Your task to perform on an android device: install app "Etsy: Buy & Sell Unique Items" Image 0: 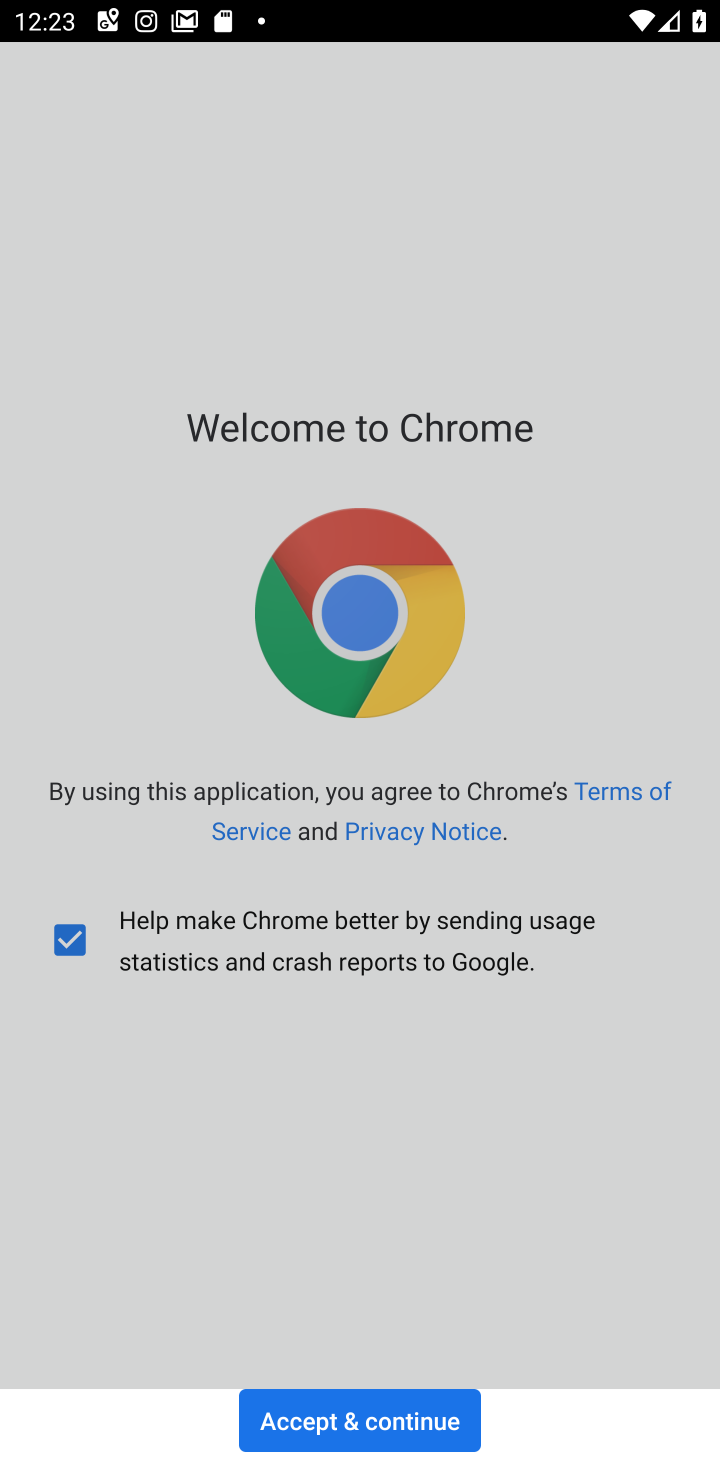
Step 0: press home button
Your task to perform on an android device: install app "Etsy: Buy & Sell Unique Items" Image 1: 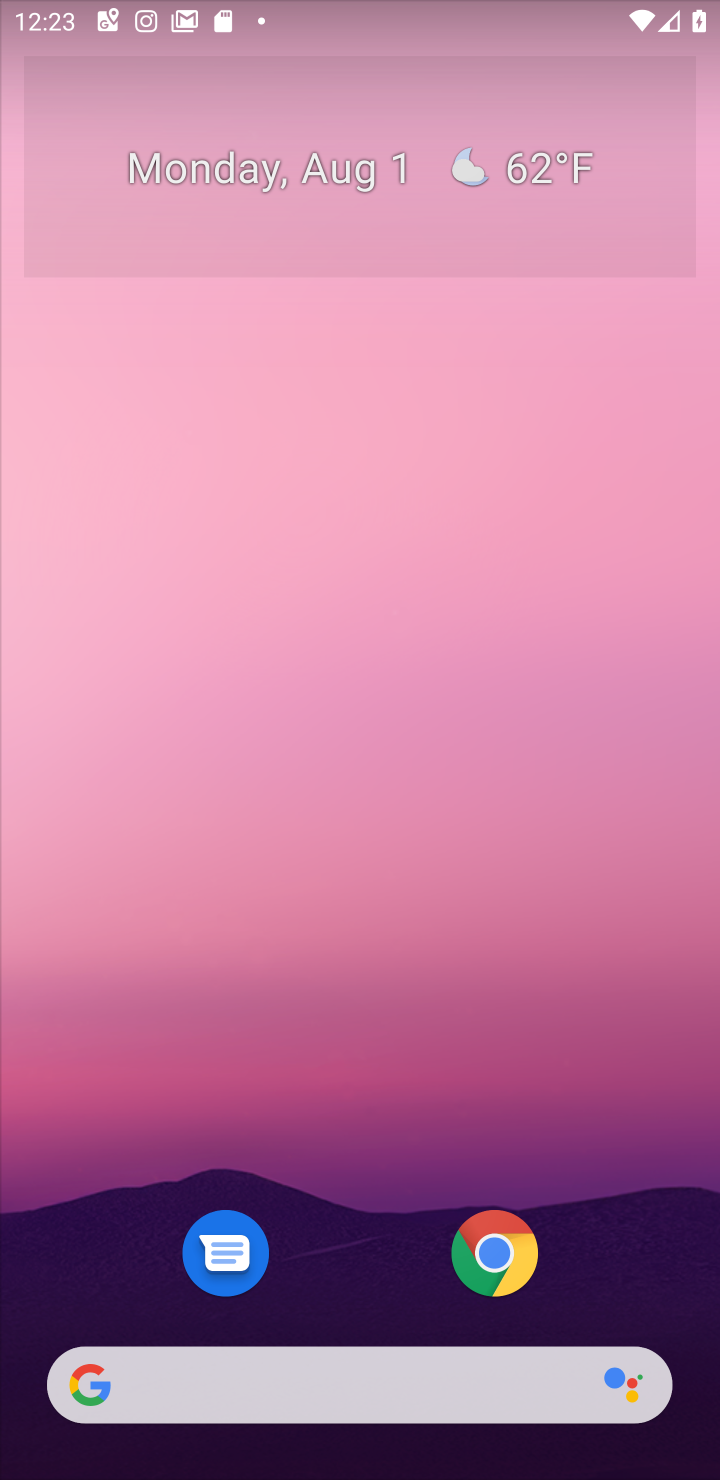
Step 1: drag from (428, 953) to (486, 126)
Your task to perform on an android device: install app "Etsy: Buy & Sell Unique Items" Image 2: 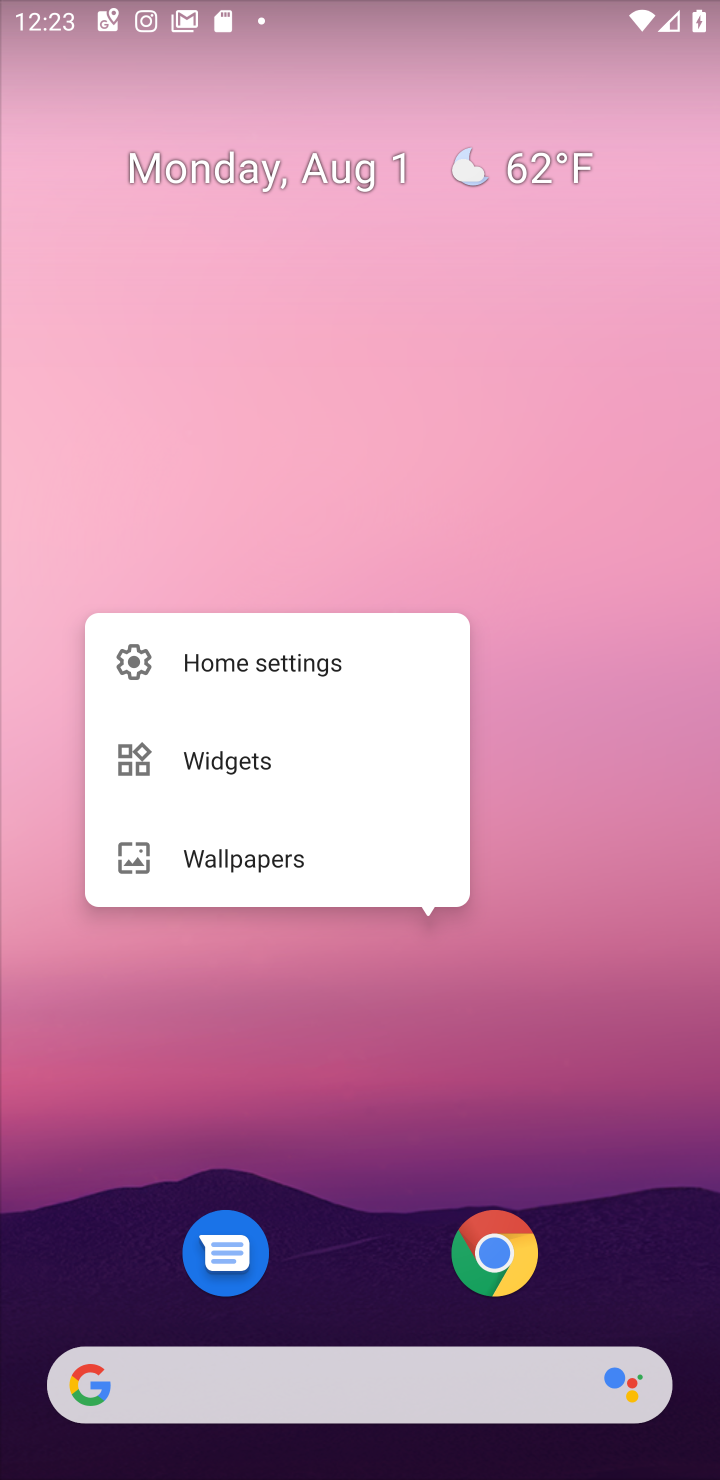
Step 2: click (560, 870)
Your task to perform on an android device: install app "Etsy: Buy & Sell Unique Items" Image 3: 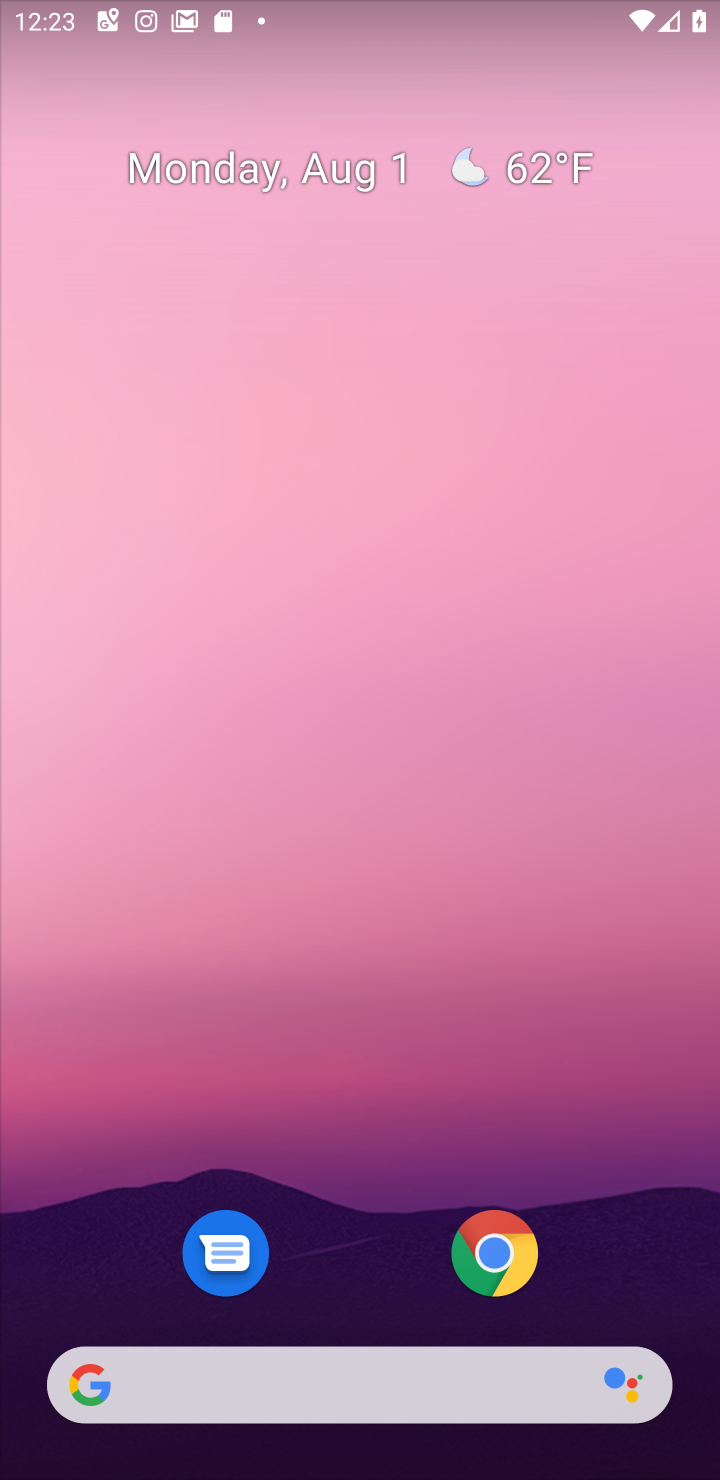
Step 3: drag from (362, 1225) to (438, 205)
Your task to perform on an android device: install app "Etsy: Buy & Sell Unique Items" Image 4: 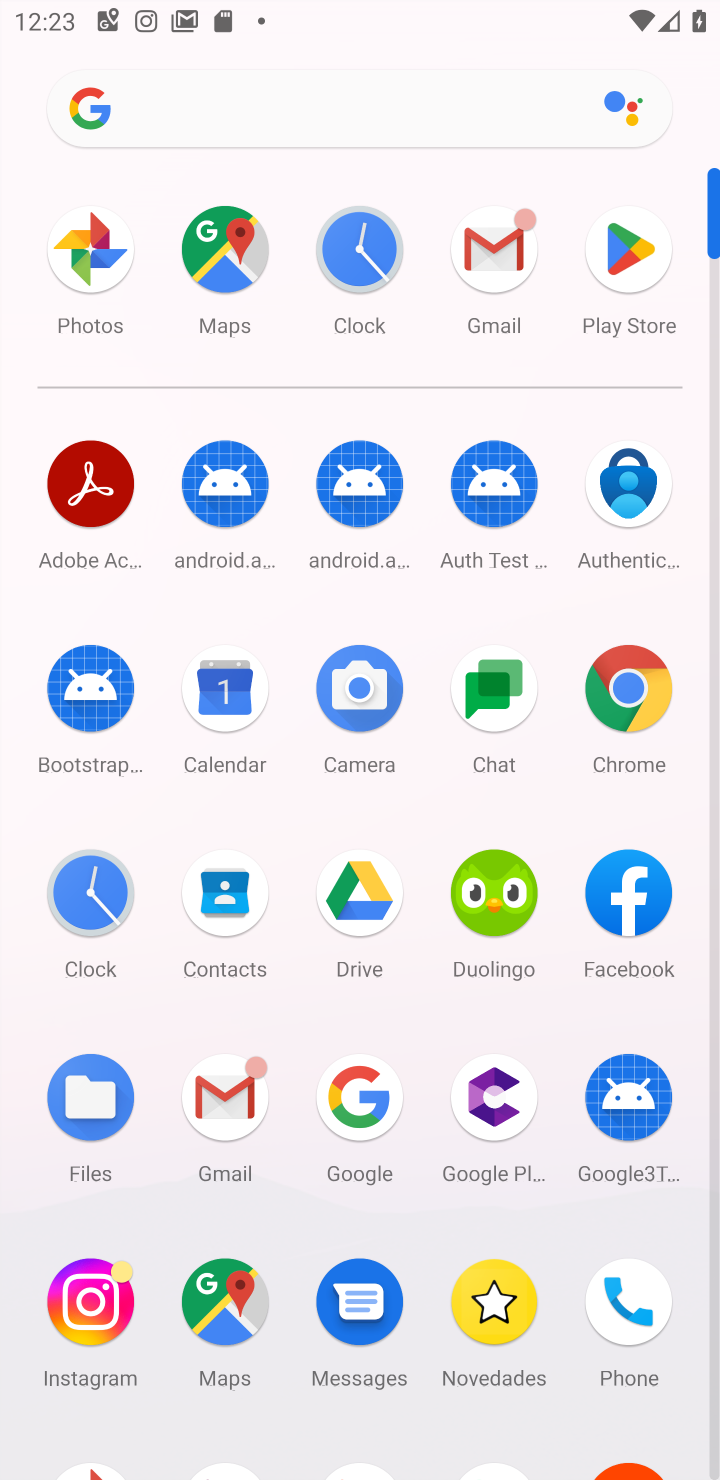
Step 4: click (637, 264)
Your task to perform on an android device: install app "Etsy: Buy & Sell Unique Items" Image 5: 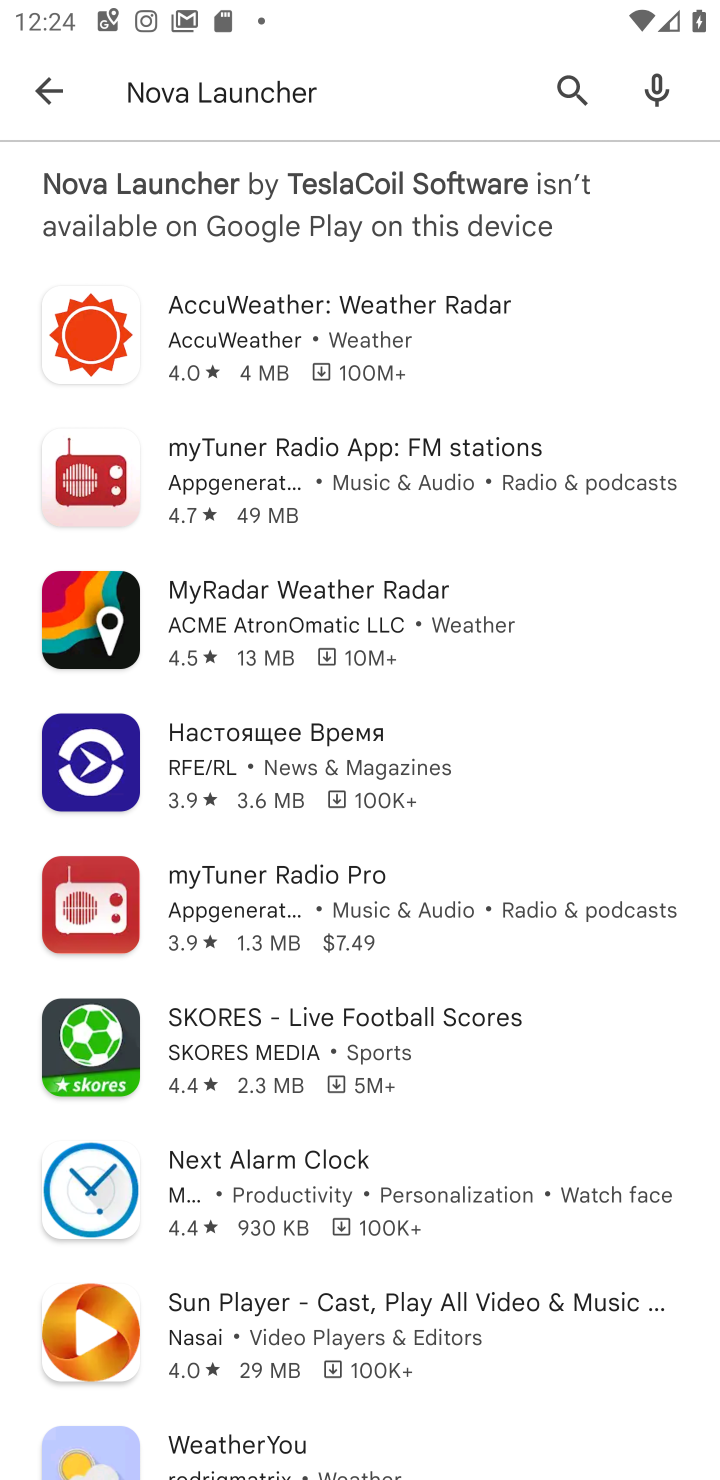
Step 5: click (433, 112)
Your task to perform on an android device: install app "Etsy: Buy & Sell Unique Items" Image 6: 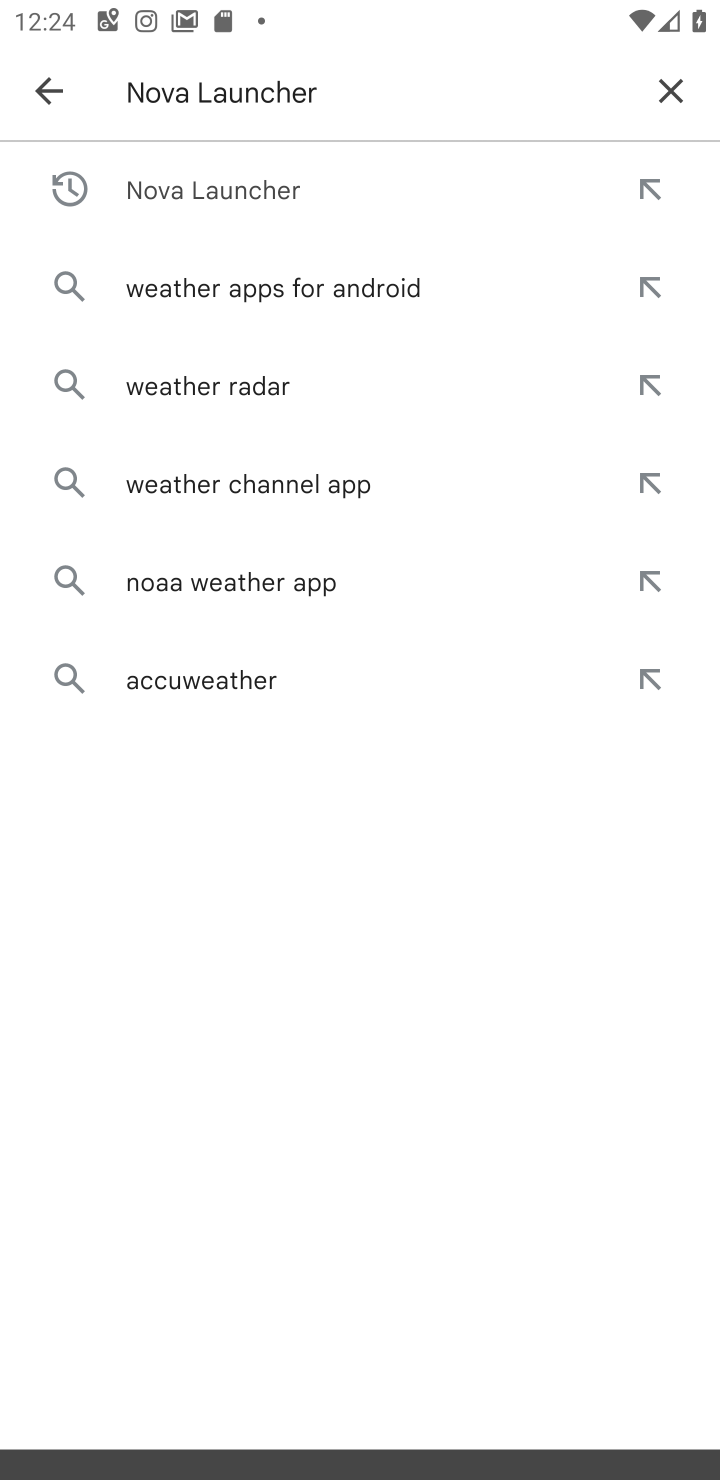
Step 6: click (661, 89)
Your task to perform on an android device: install app "Etsy: Buy & Sell Unique Items" Image 7: 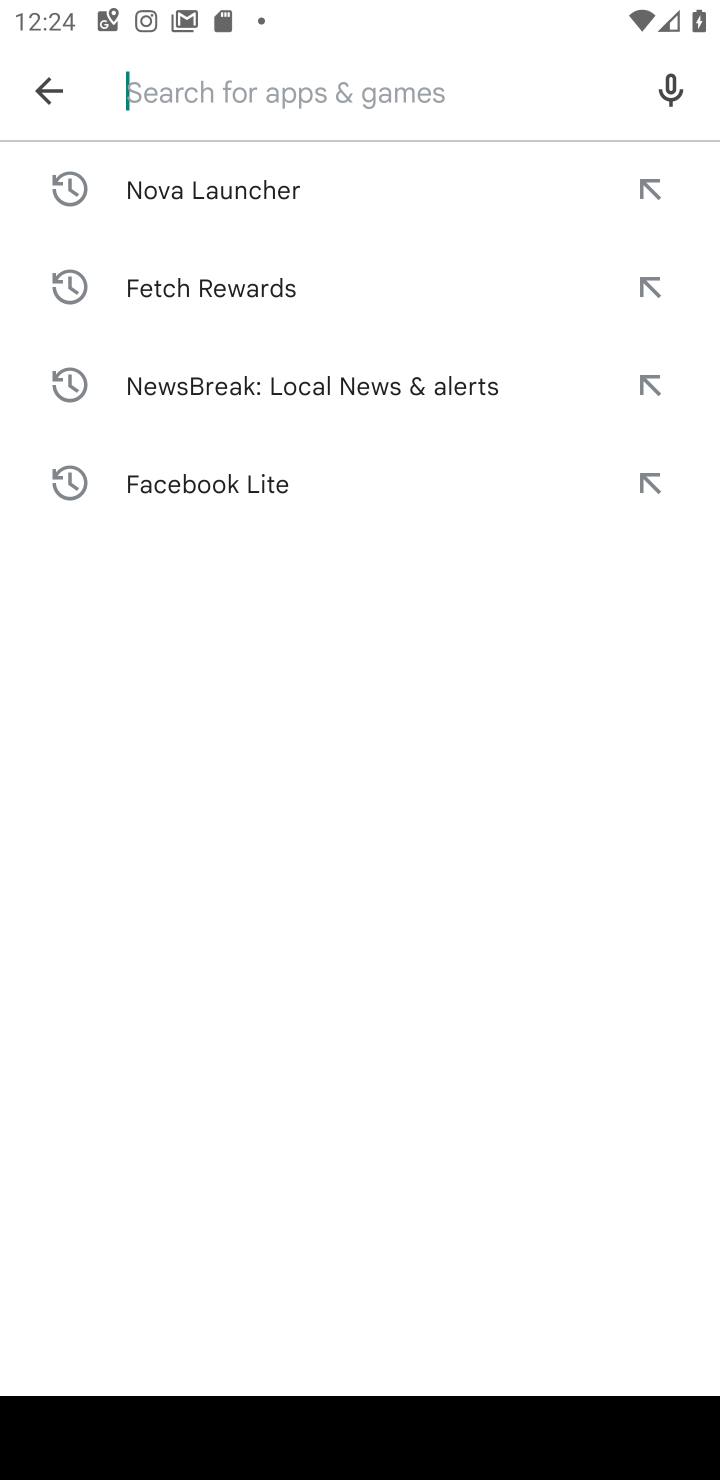
Step 7: type "Etsy: Buy & Sell Unique Items"
Your task to perform on an android device: install app "Etsy: Buy & Sell Unique Items" Image 8: 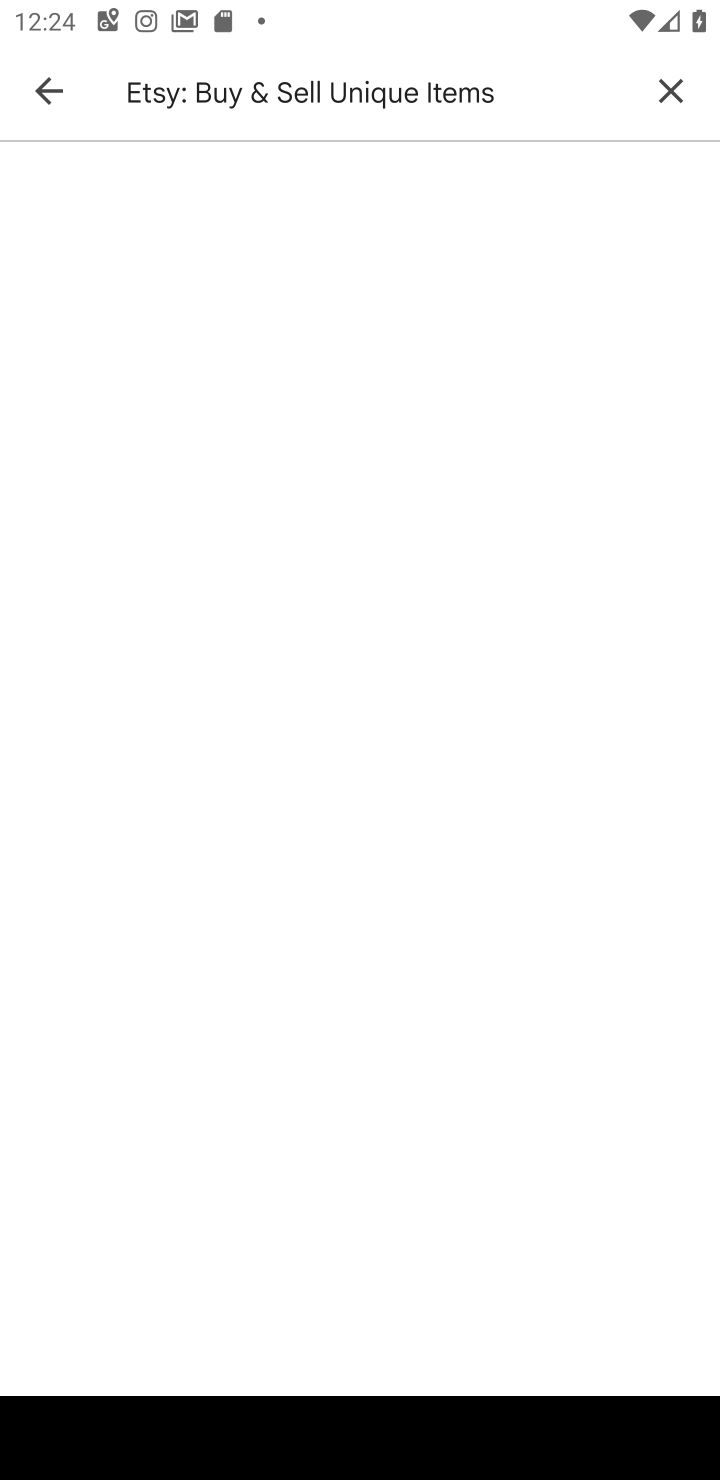
Step 8: press enter
Your task to perform on an android device: install app "Etsy: Buy & Sell Unique Items" Image 9: 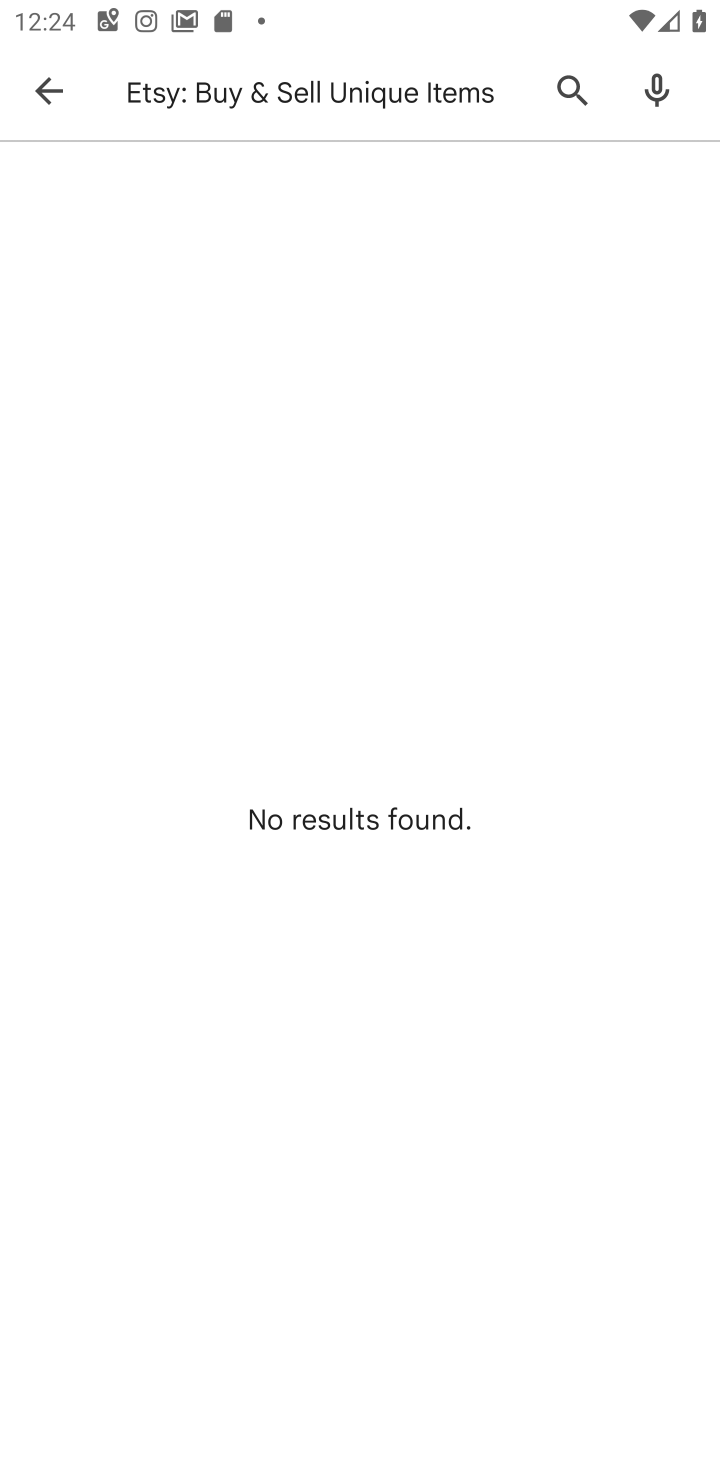
Step 9: task complete